Your task to perform on an android device: Go to Wikipedia Image 0: 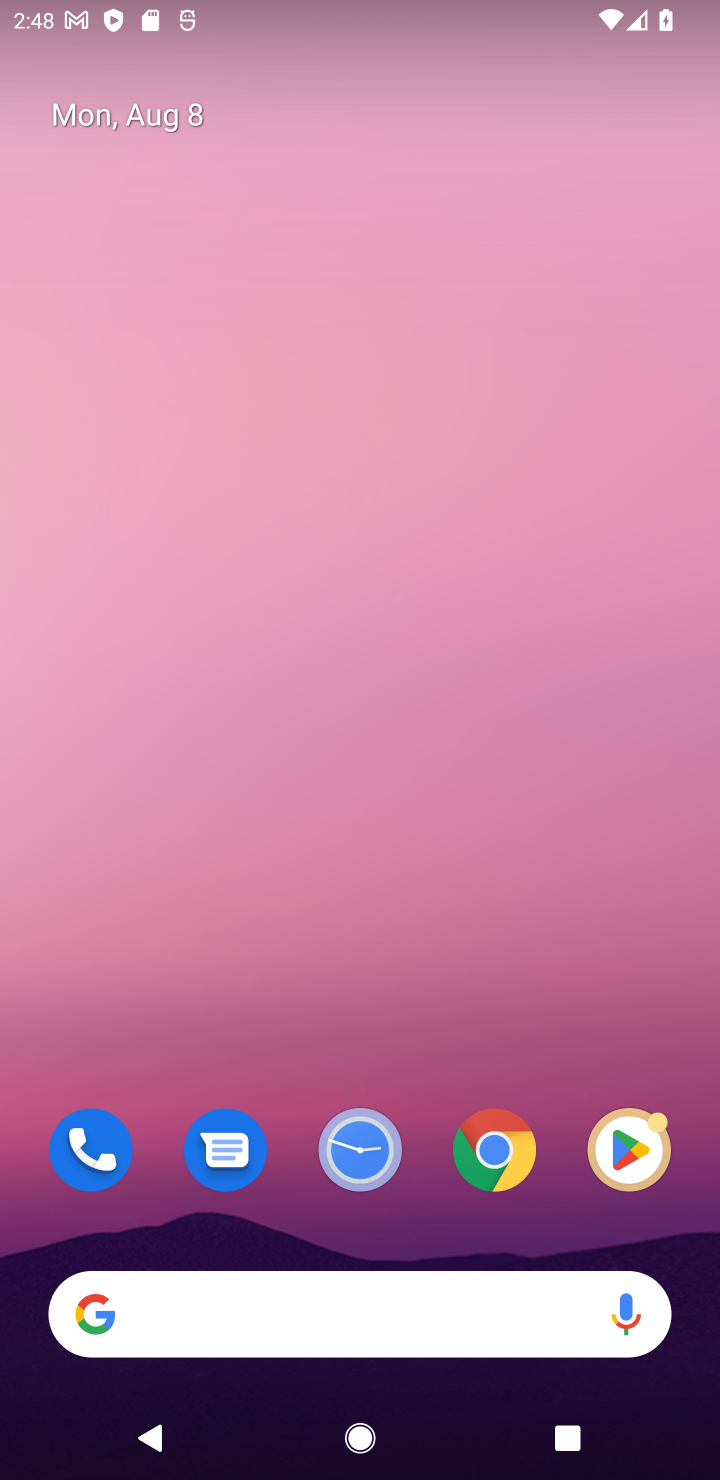
Step 0: click (138, 1309)
Your task to perform on an android device: Go to Wikipedia Image 1: 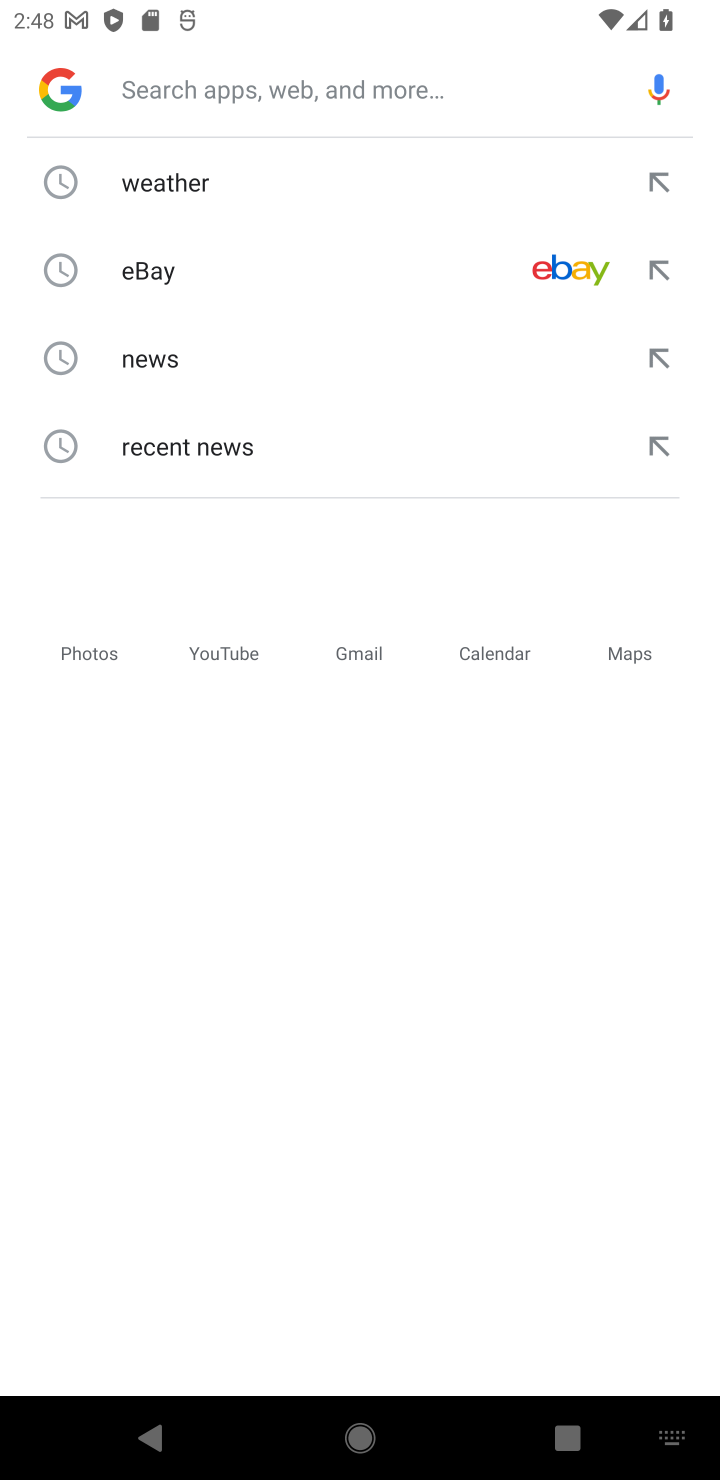
Step 1: type "Wikipedia"
Your task to perform on an android device: Go to Wikipedia Image 2: 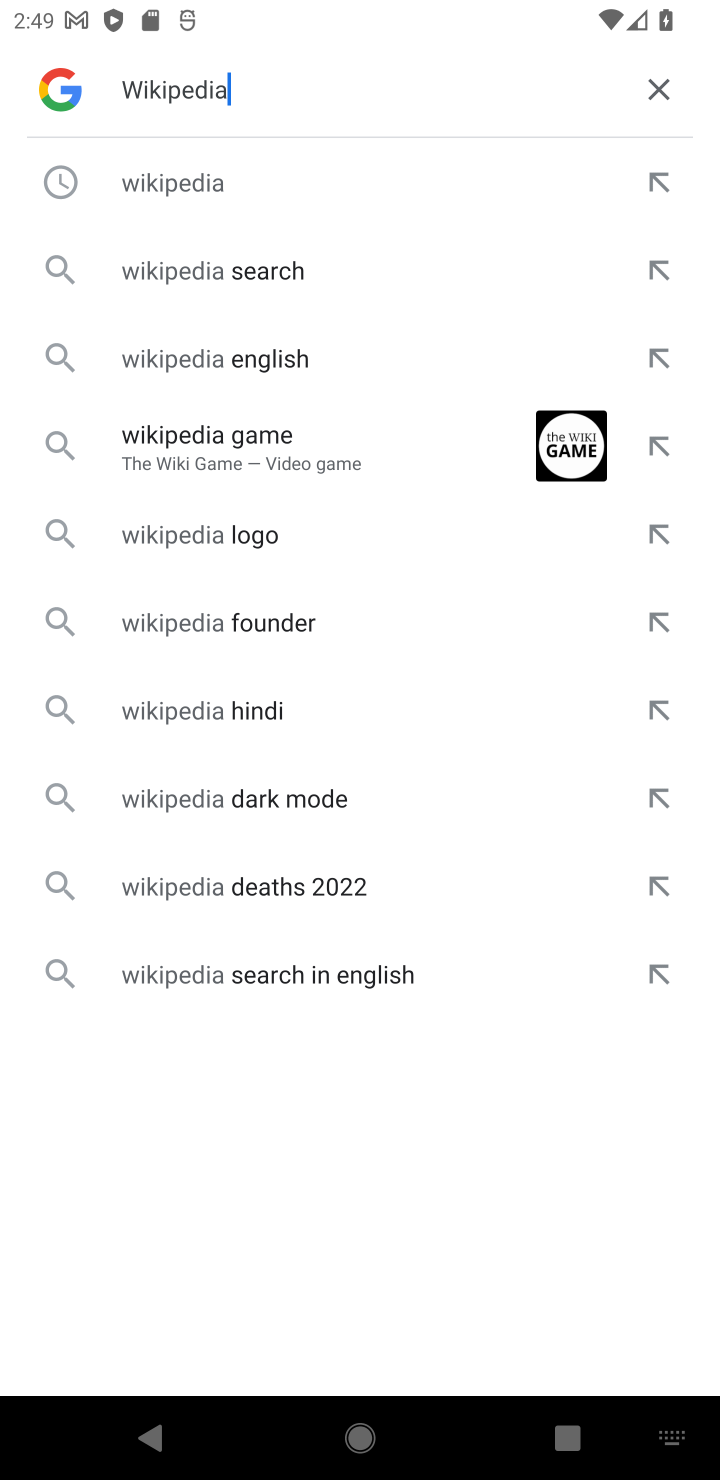
Step 2: click (162, 169)
Your task to perform on an android device: Go to Wikipedia Image 3: 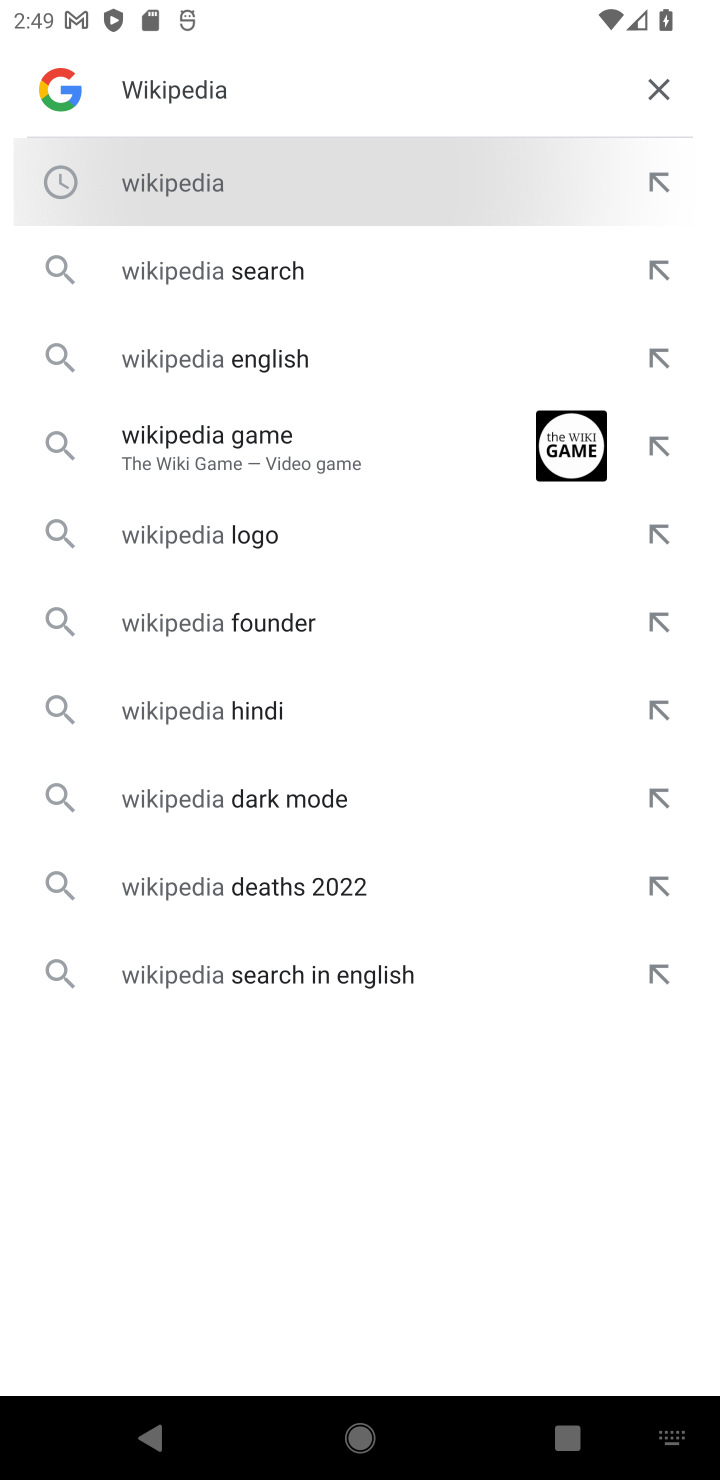
Step 3: click (162, 169)
Your task to perform on an android device: Go to Wikipedia Image 4: 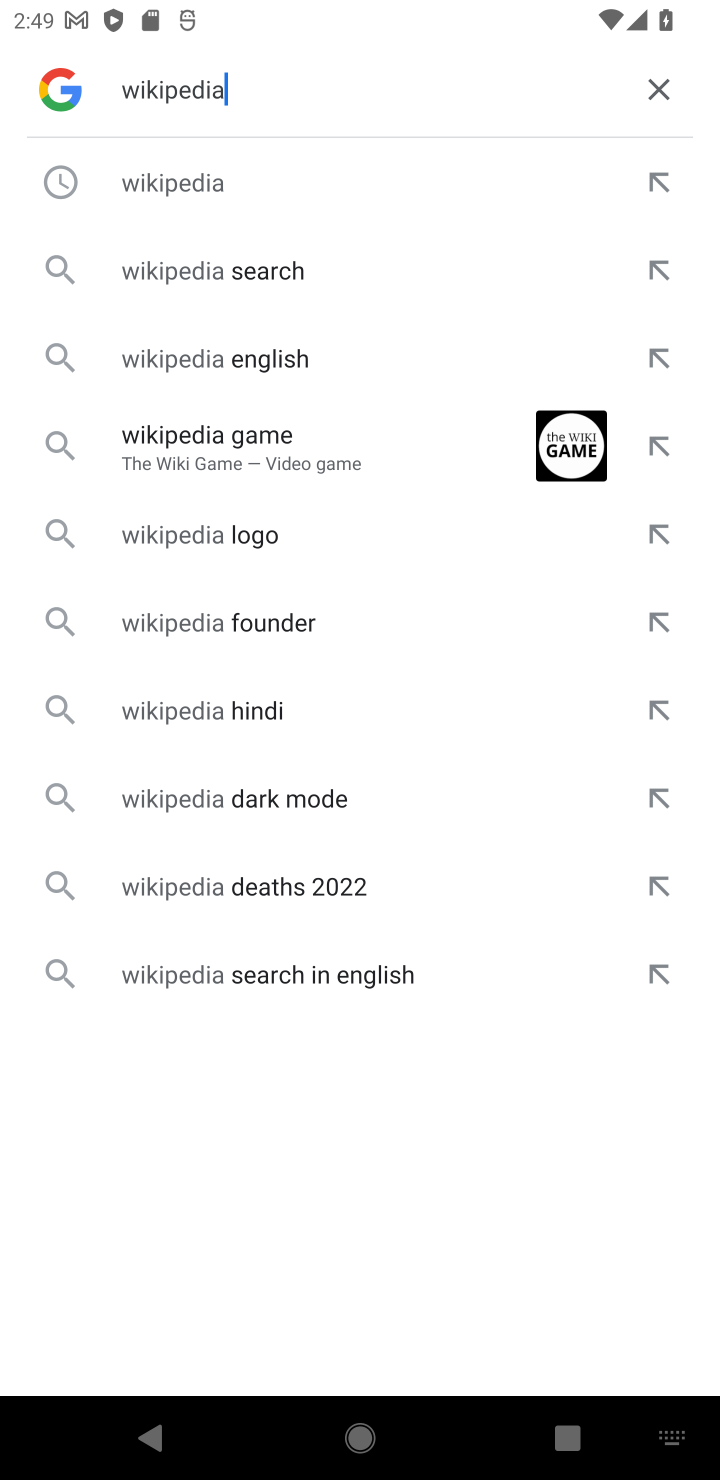
Step 4: task complete